Your task to perform on an android device: Open Wikipedia Image 0: 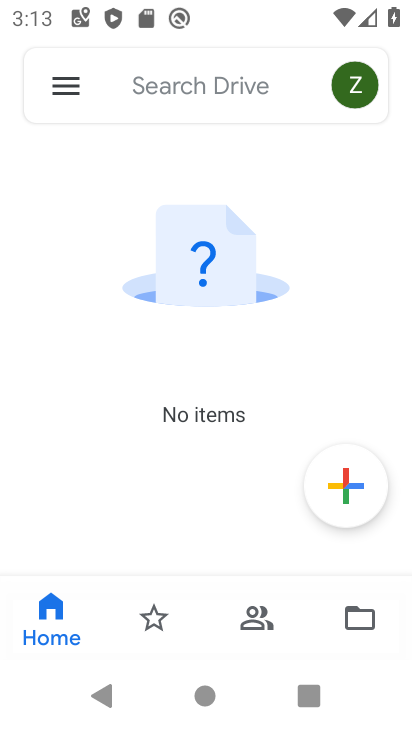
Step 0: press back button
Your task to perform on an android device: Open Wikipedia Image 1: 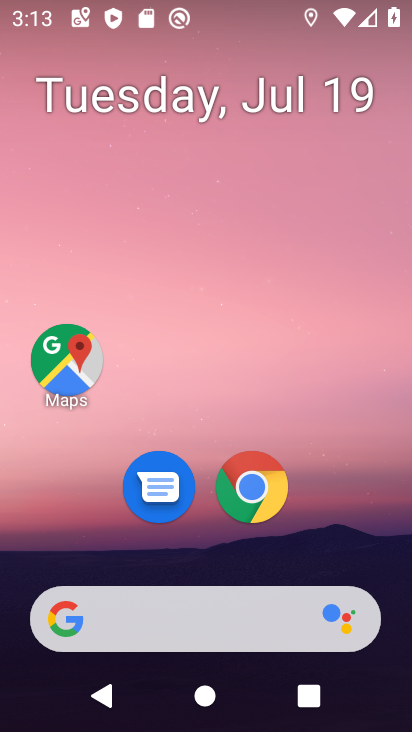
Step 1: click (247, 471)
Your task to perform on an android device: Open Wikipedia Image 2: 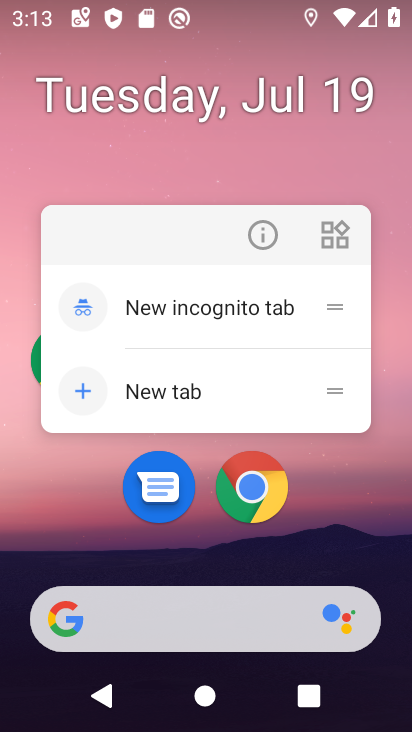
Step 2: click (254, 470)
Your task to perform on an android device: Open Wikipedia Image 3: 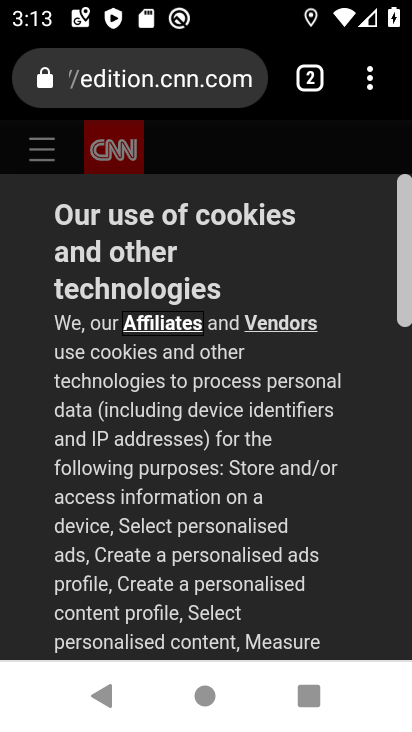
Step 3: click (311, 85)
Your task to perform on an android device: Open Wikipedia Image 4: 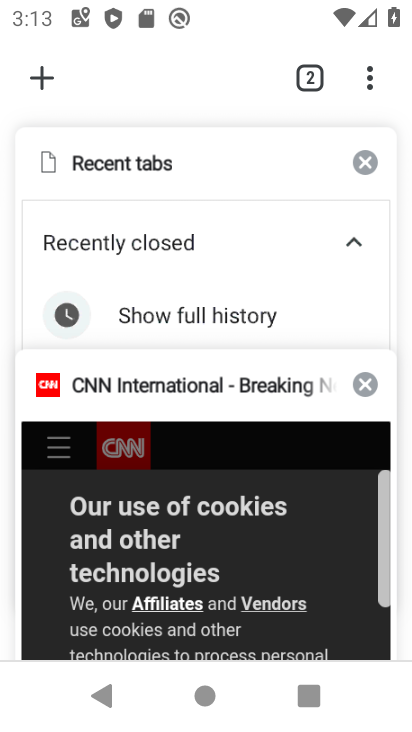
Step 4: click (47, 71)
Your task to perform on an android device: Open Wikipedia Image 5: 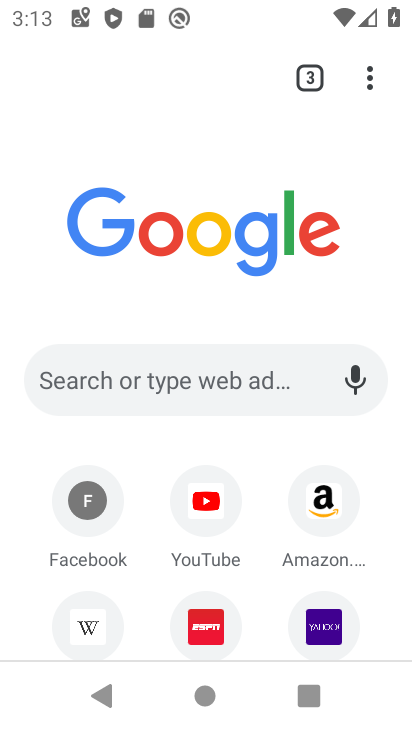
Step 5: click (80, 618)
Your task to perform on an android device: Open Wikipedia Image 6: 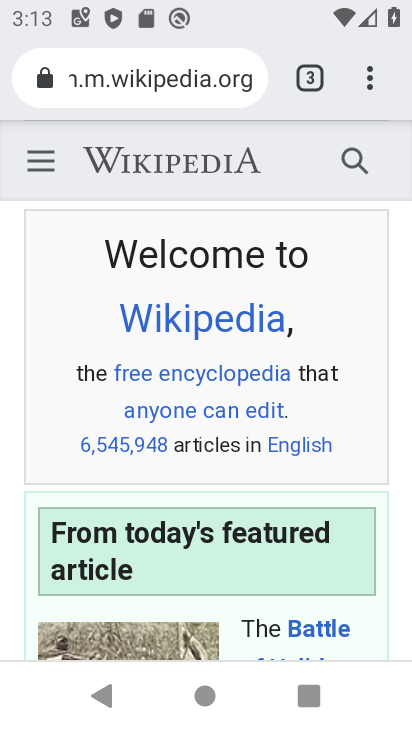
Step 6: task complete